Your task to perform on an android device: Open sound settings Image 0: 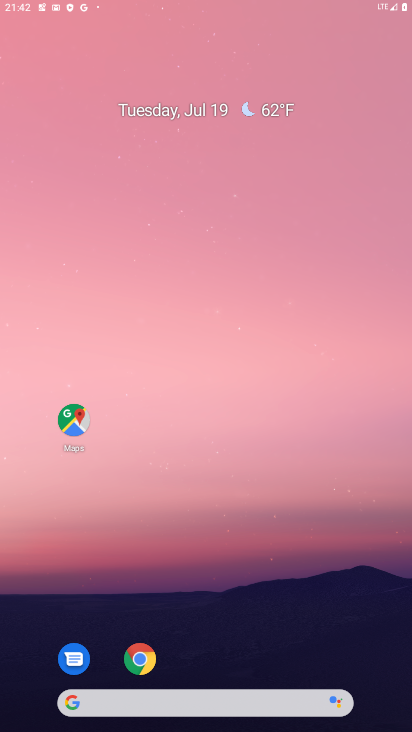
Step 0: press home button
Your task to perform on an android device: Open sound settings Image 1: 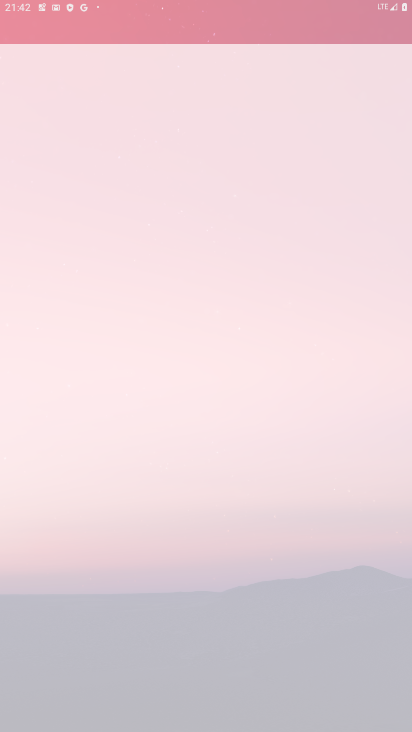
Step 1: drag from (228, 700) to (245, 186)
Your task to perform on an android device: Open sound settings Image 2: 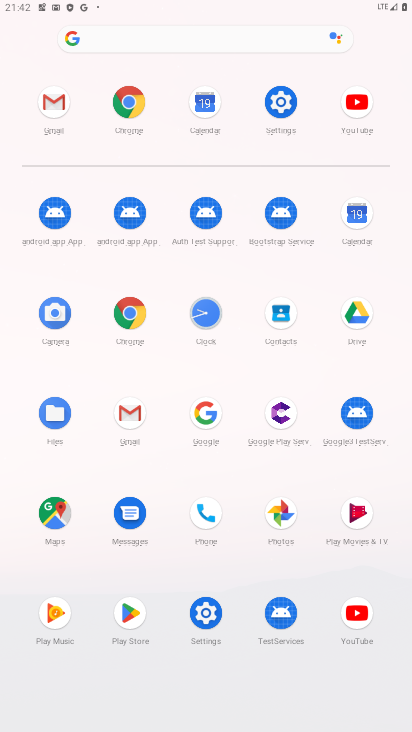
Step 2: click (208, 417)
Your task to perform on an android device: Open sound settings Image 3: 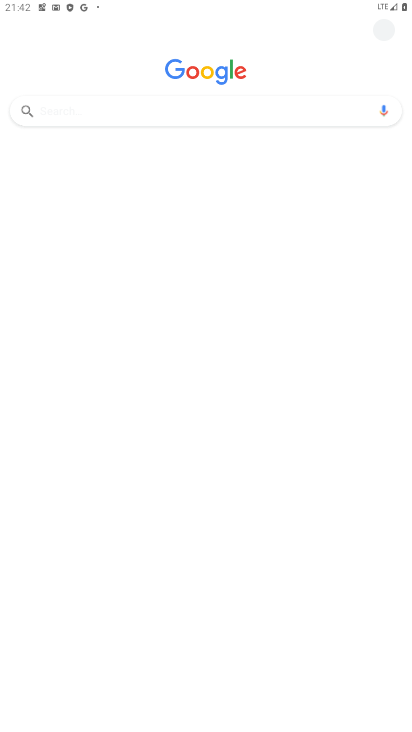
Step 3: press home button
Your task to perform on an android device: Open sound settings Image 4: 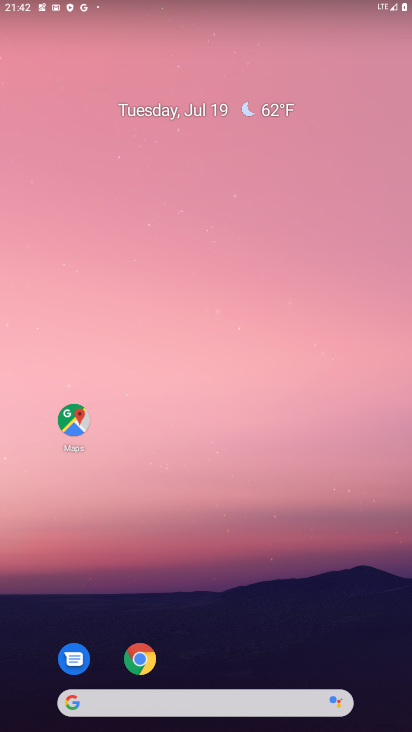
Step 4: drag from (234, 642) to (208, 211)
Your task to perform on an android device: Open sound settings Image 5: 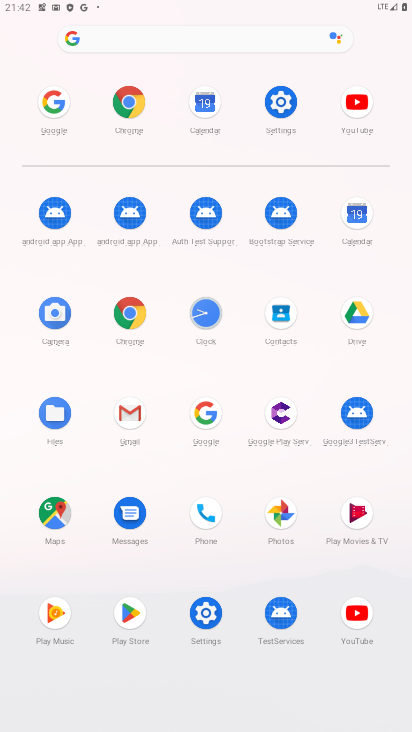
Step 5: click (279, 109)
Your task to perform on an android device: Open sound settings Image 6: 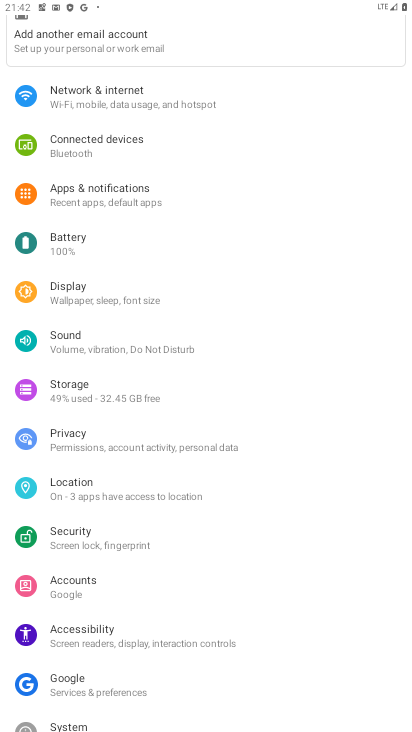
Step 6: click (48, 339)
Your task to perform on an android device: Open sound settings Image 7: 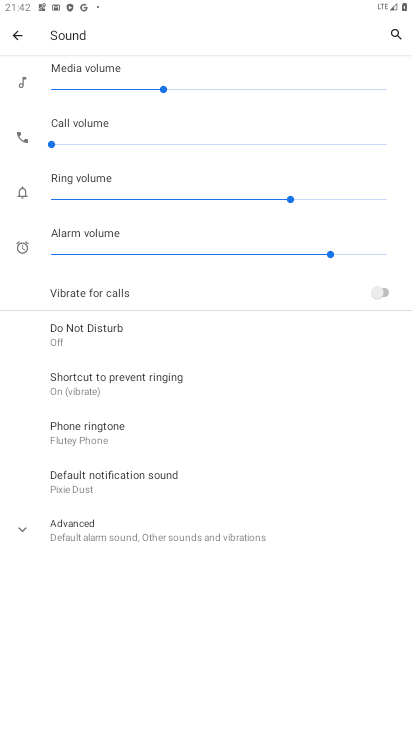
Step 7: task complete